Your task to perform on an android device: open chrome privacy settings Image 0: 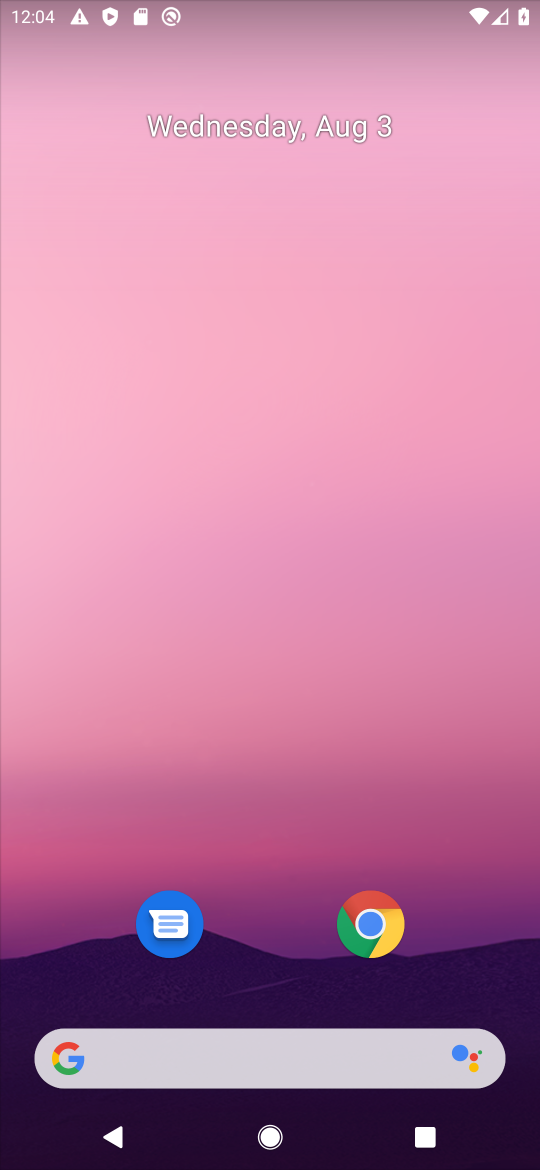
Step 0: press back button
Your task to perform on an android device: open chrome privacy settings Image 1: 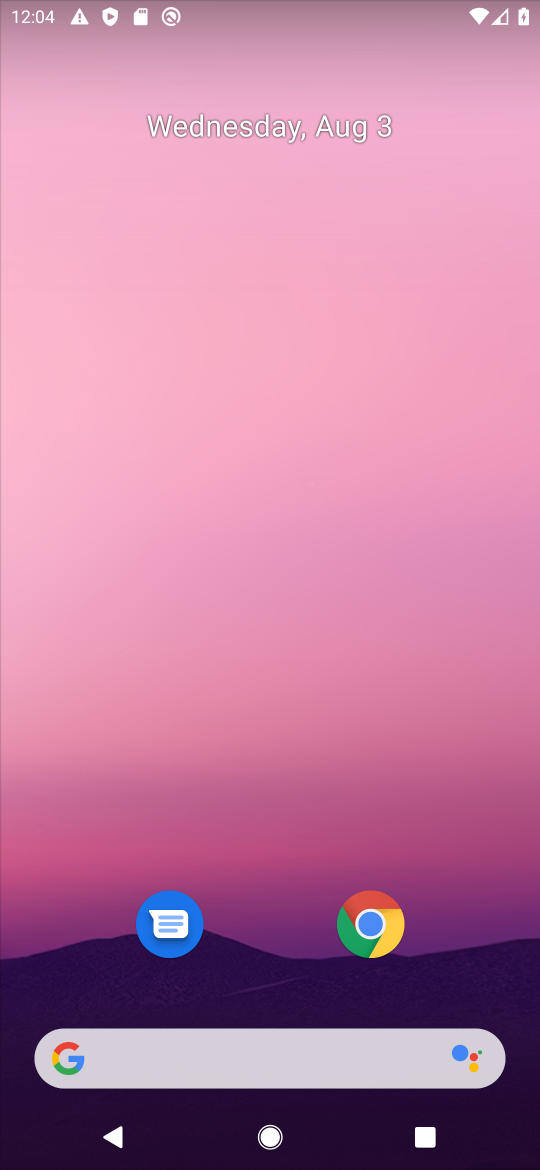
Step 1: drag from (279, 764) to (365, 54)
Your task to perform on an android device: open chrome privacy settings Image 2: 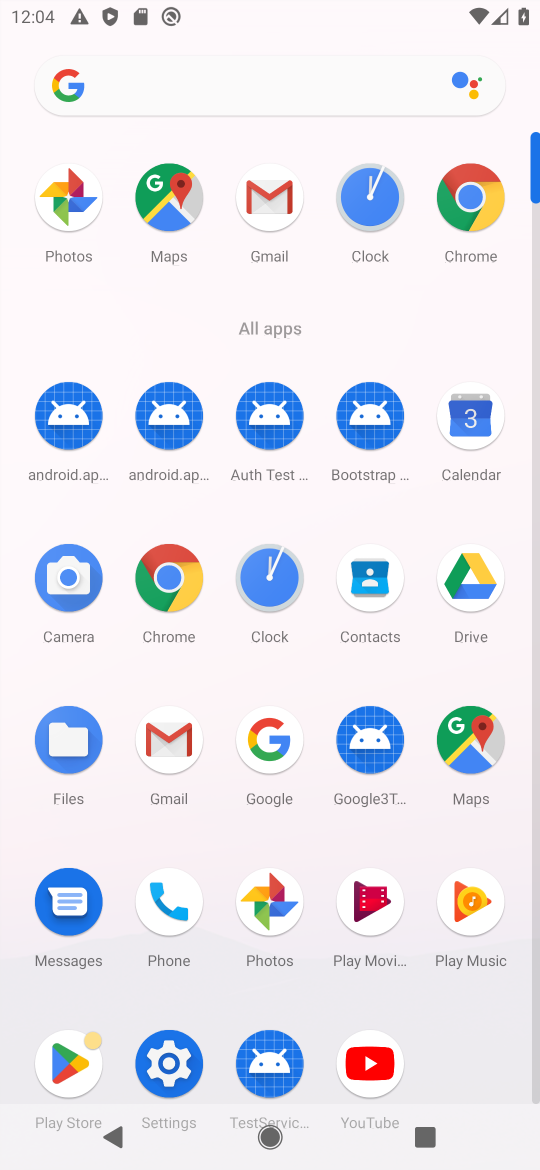
Step 2: click (483, 188)
Your task to perform on an android device: open chrome privacy settings Image 3: 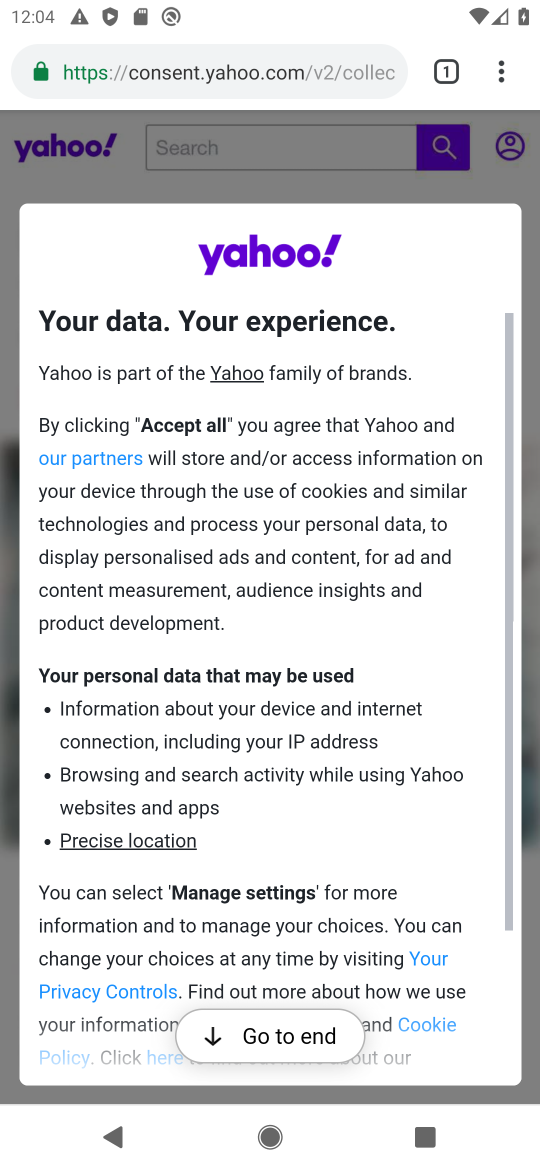
Step 3: drag from (497, 75) to (284, 859)
Your task to perform on an android device: open chrome privacy settings Image 4: 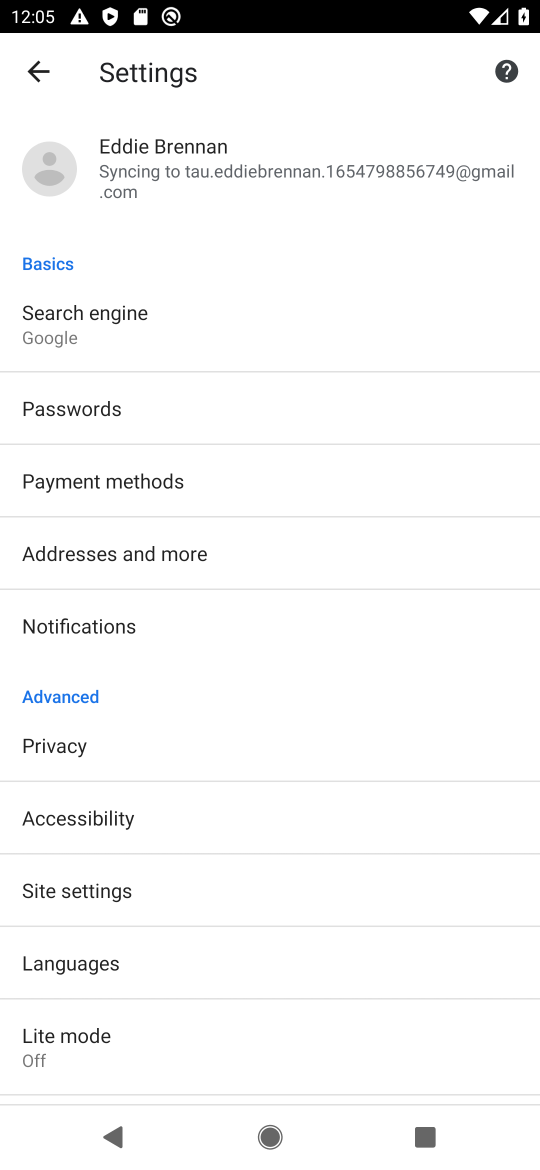
Step 4: drag from (256, 1017) to (328, 411)
Your task to perform on an android device: open chrome privacy settings Image 5: 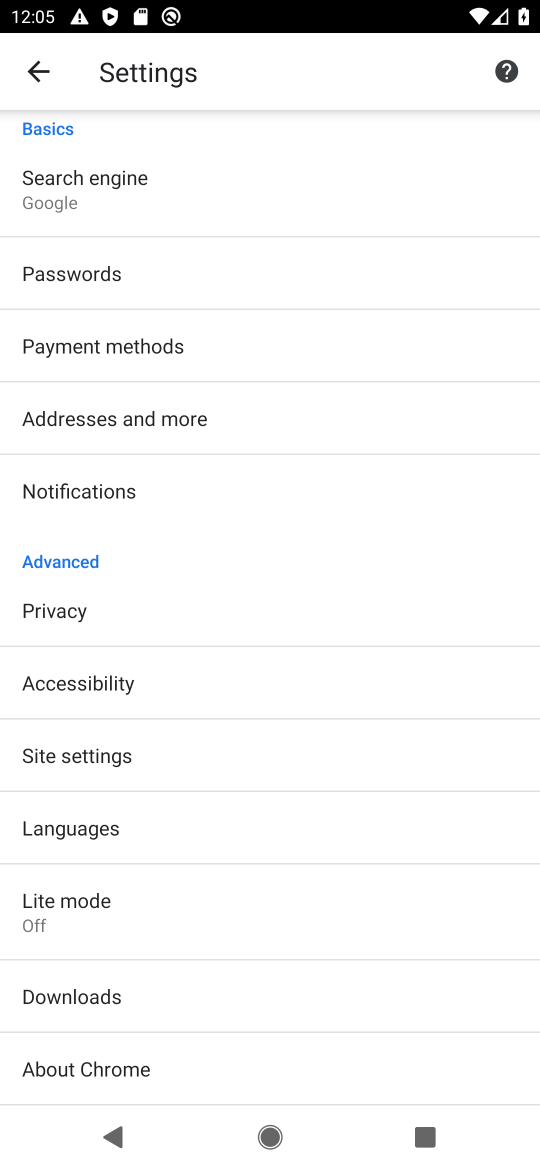
Step 5: click (93, 610)
Your task to perform on an android device: open chrome privacy settings Image 6: 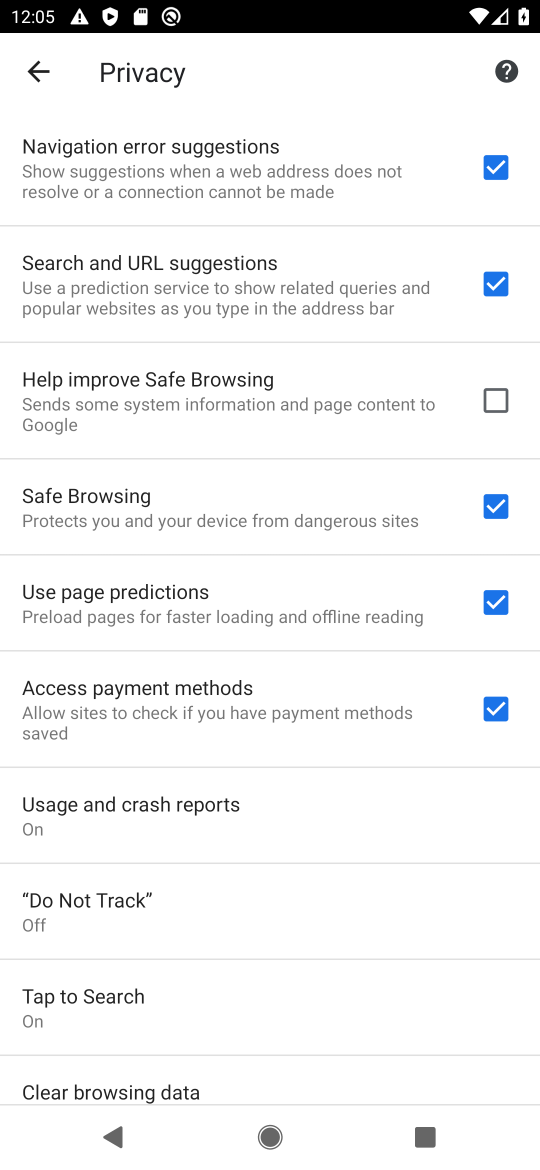
Step 6: task complete